Your task to perform on an android device: Open Google Chrome Image 0: 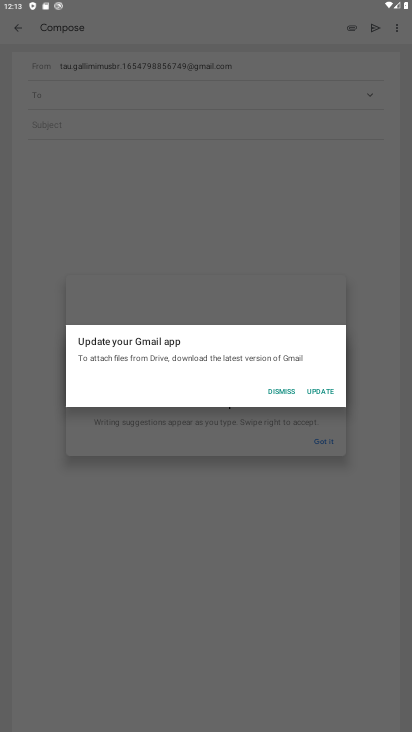
Step 0: press home button
Your task to perform on an android device: Open Google Chrome Image 1: 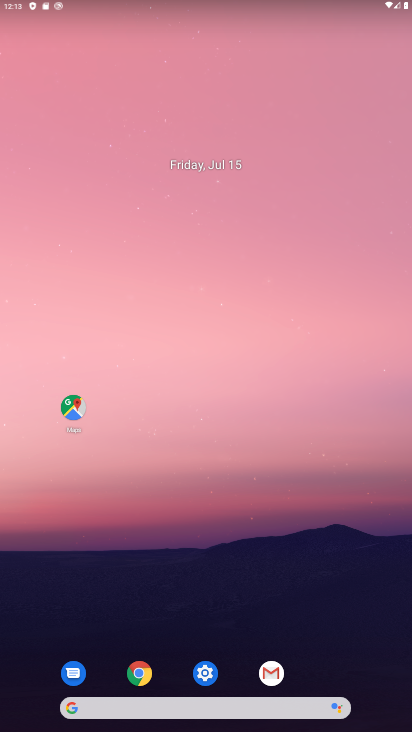
Step 1: click (146, 668)
Your task to perform on an android device: Open Google Chrome Image 2: 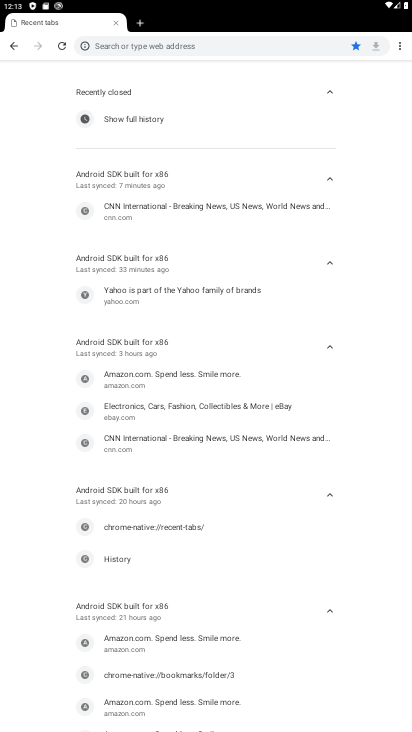
Step 2: click (145, 25)
Your task to perform on an android device: Open Google Chrome Image 3: 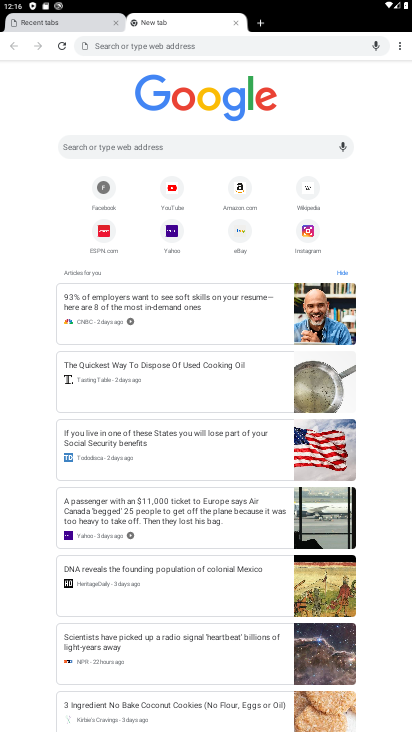
Step 3: task complete